Your task to perform on an android device: see tabs open on other devices in the chrome app Image 0: 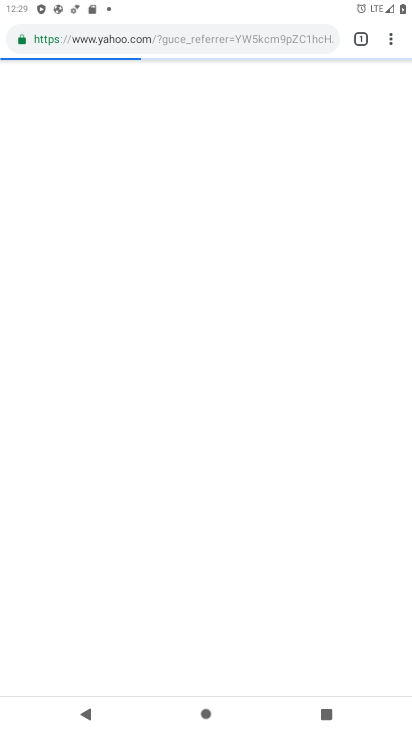
Step 0: press home button
Your task to perform on an android device: see tabs open on other devices in the chrome app Image 1: 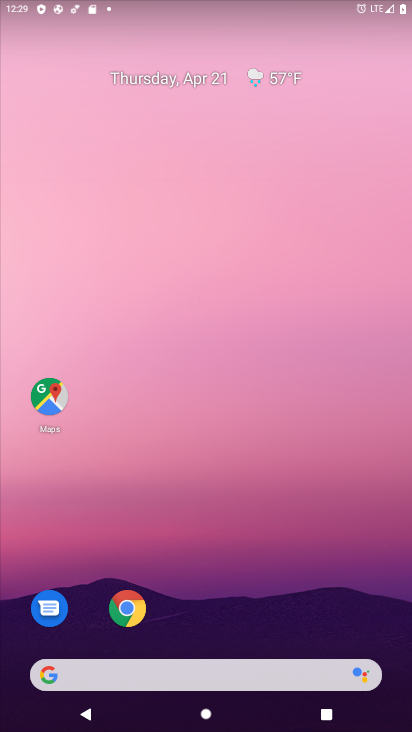
Step 1: drag from (195, 605) to (179, 500)
Your task to perform on an android device: see tabs open on other devices in the chrome app Image 2: 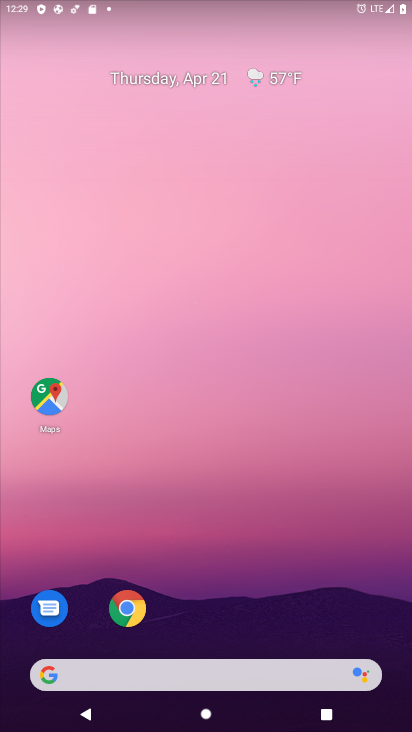
Step 2: click (131, 605)
Your task to perform on an android device: see tabs open on other devices in the chrome app Image 3: 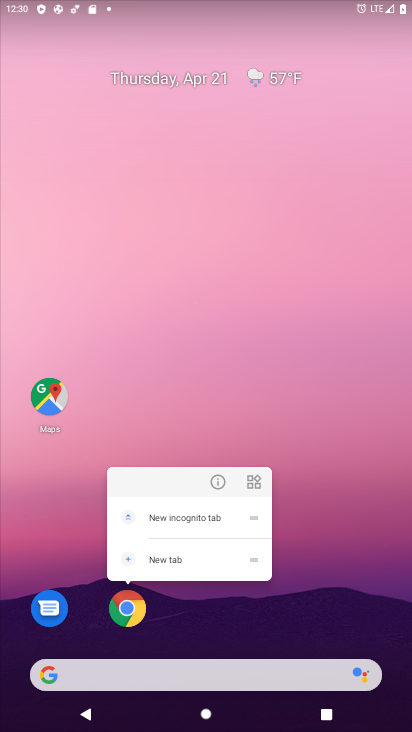
Step 3: click (131, 605)
Your task to perform on an android device: see tabs open on other devices in the chrome app Image 4: 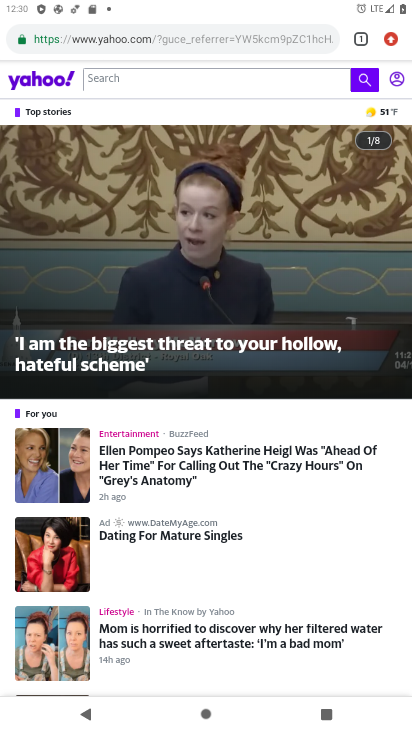
Step 4: task complete